Your task to perform on an android device: Search for Italian restaurants on Maps Image 0: 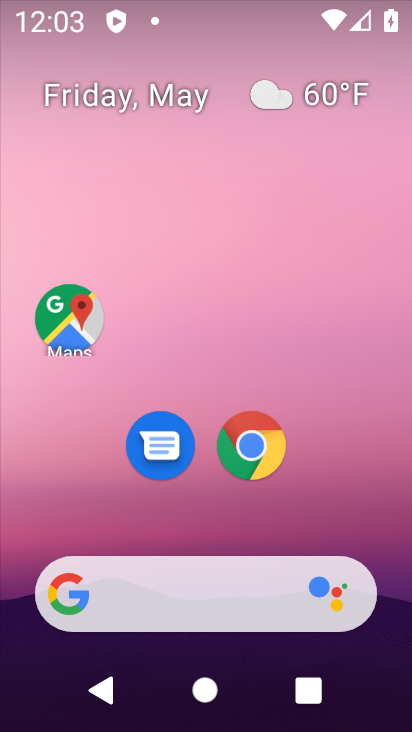
Step 0: click (70, 337)
Your task to perform on an android device: Search for Italian restaurants on Maps Image 1: 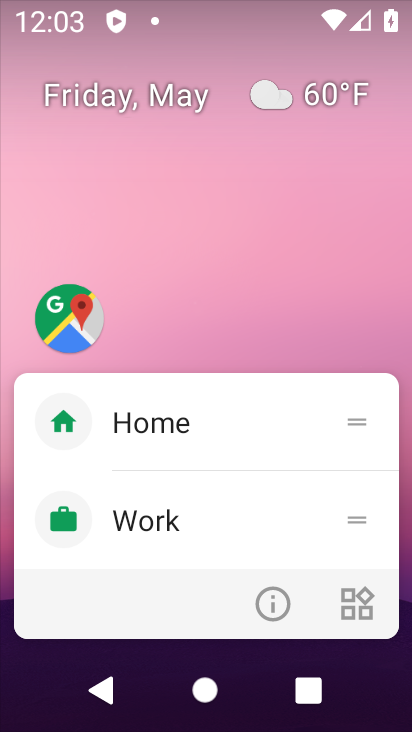
Step 1: click (76, 333)
Your task to perform on an android device: Search for Italian restaurants on Maps Image 2: 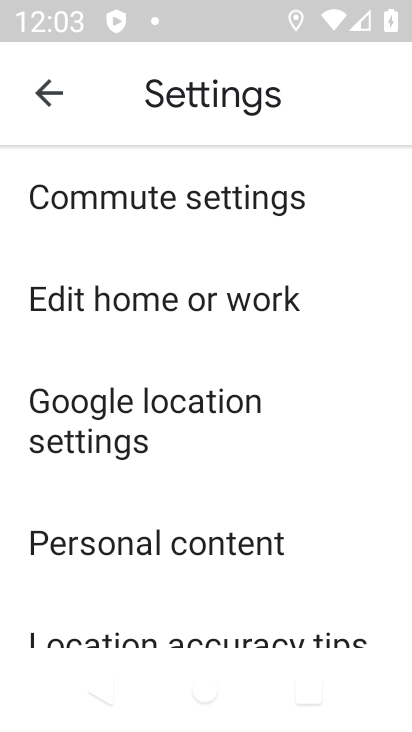
Step 2: click (54, 100)
Your task to perform on an android device: Search for Italian restaurants on Maps Image 3: 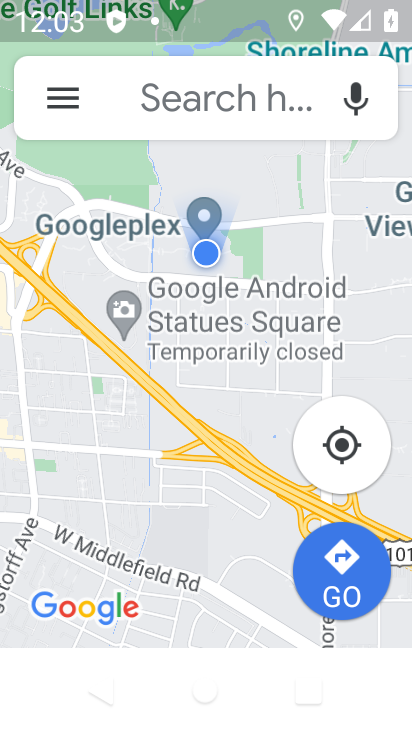
Step 3: click (159, 118)
Your task to perform on an android device: Search for Italian restaurants on Maps Image 4: 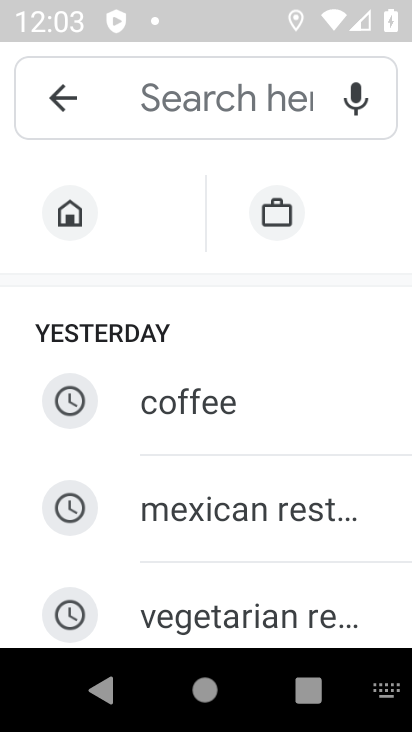
Step 4: type "Italian restaurants"
Your task to perform on an android device: Search for Italian restaurants on Maps Image 5: 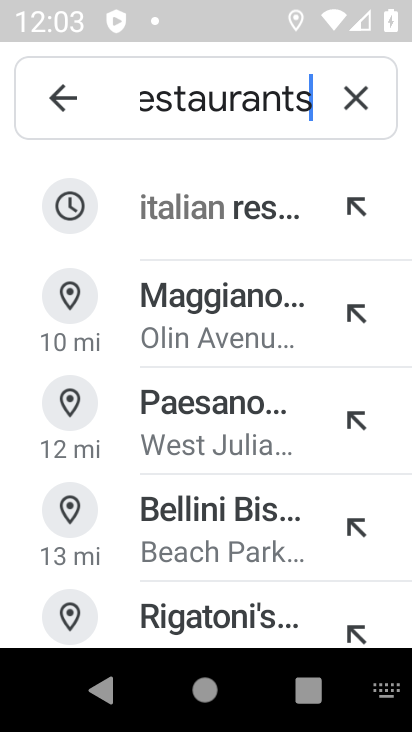
Step 5: click (171, 228)
Your task to perform on an android device: Search for Italian restaurants on Maps Image 6: 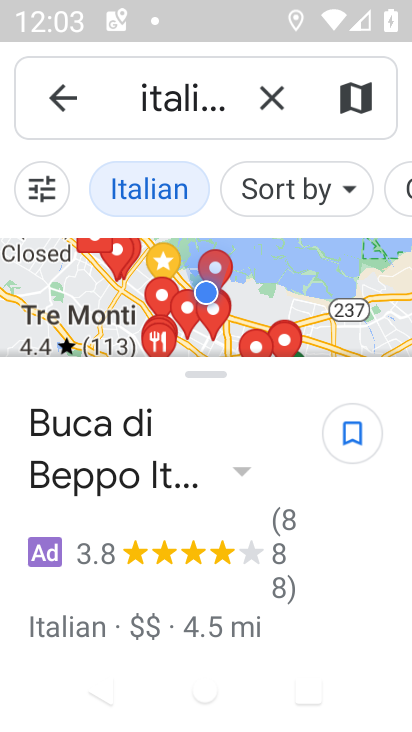
Step 6: task complete